Your task to perform on an android device: Open maps Image 0: 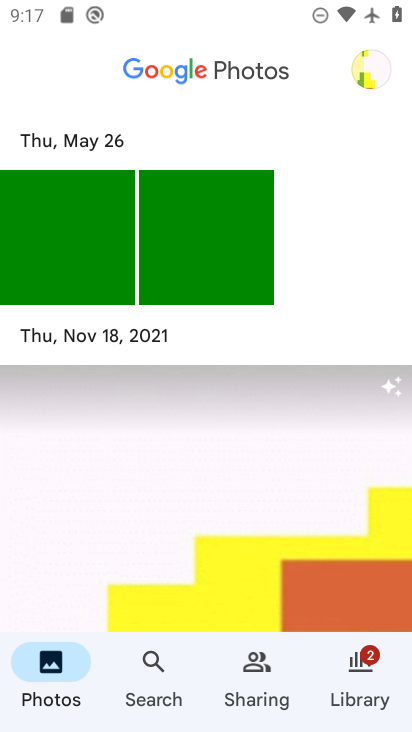
Step 0: press home button
Your task to perform on an android device: Open maps Image 1: 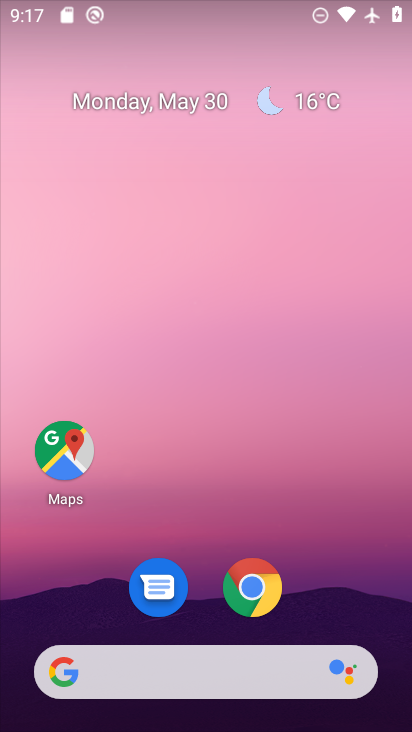
Step 1: click (66, 454)
Your task to perform on an android device: Open maps Image 2: 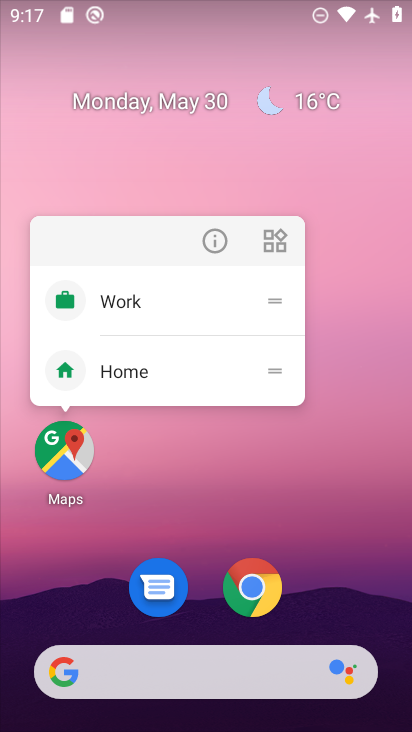
Step 2: click (65, 465)
Your task to perform on an android device: Open maps Image 3: 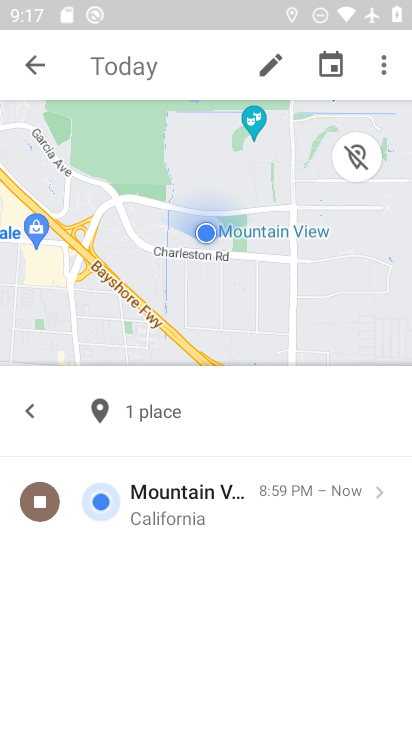
Step 3: task complete